Your task to perform on an android device: Open wifi settings Image 0: 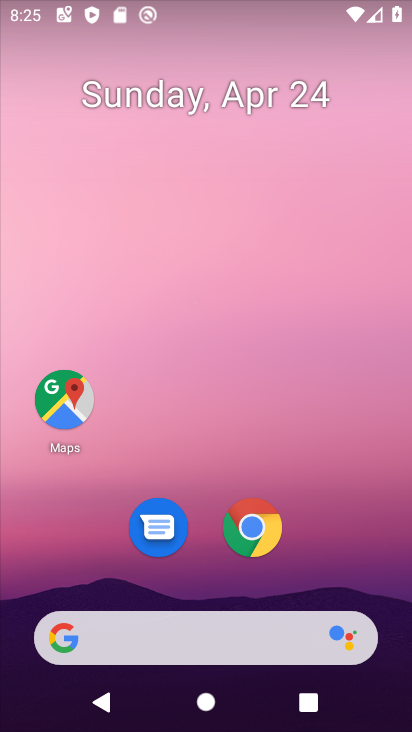
Step 0: drag from (350, 560) to (215, 41)
Your task to perform on an android device: Open wifi settings Image 1: 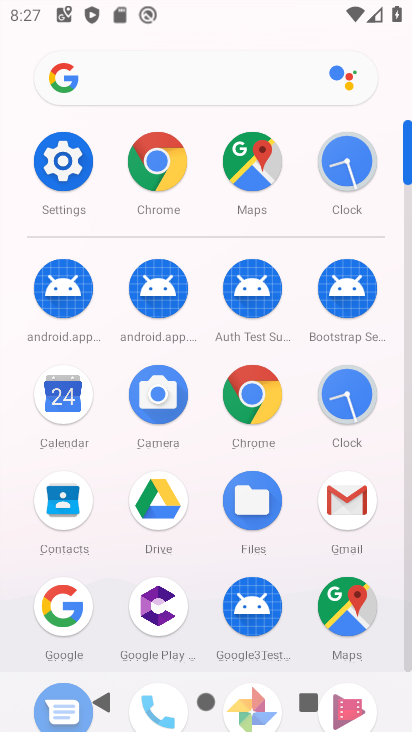
Step 1: click (45, 166)
Your task to perform on an android device: Open wifi settings Image 2: 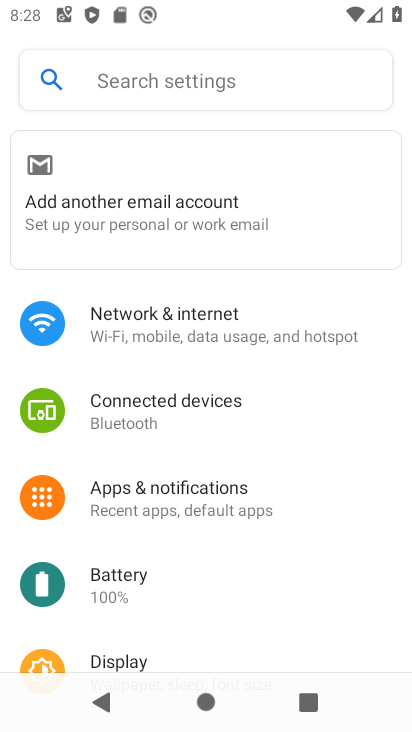
Step 2: click (185, 338)
Your task to perform on an android device: Open wifi settings Image 3: 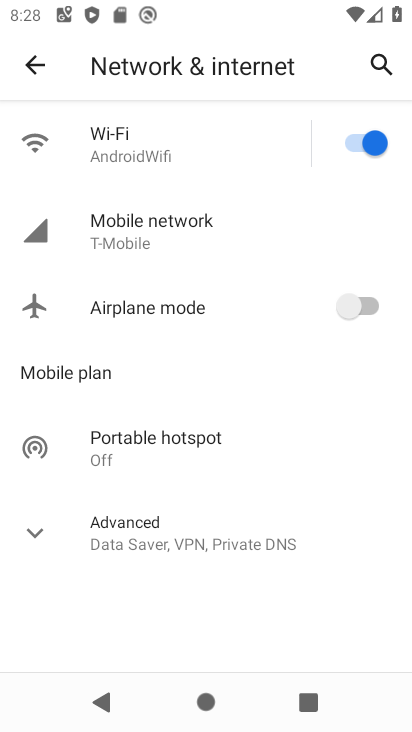
Step 3: click (153, 157)
Your task to perform on an android device: Open wifi settings Image 4: 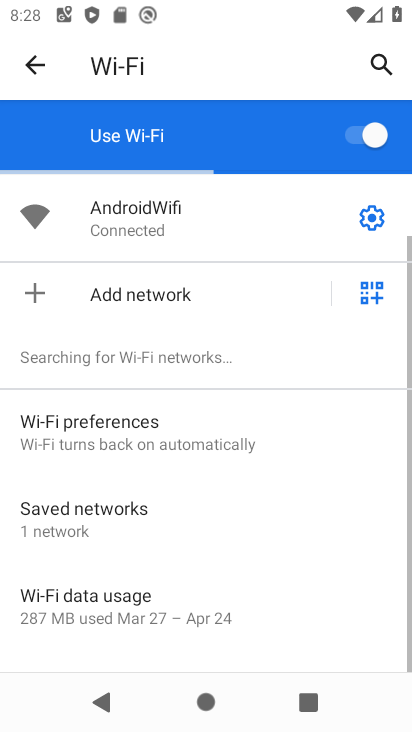
Step 4: task complete